Your task to perform on an android device: View the shopping cart on ebay. Search for "asus rog" on ebay, select the first entry, add it to the cart, then select checkout. Image 0: 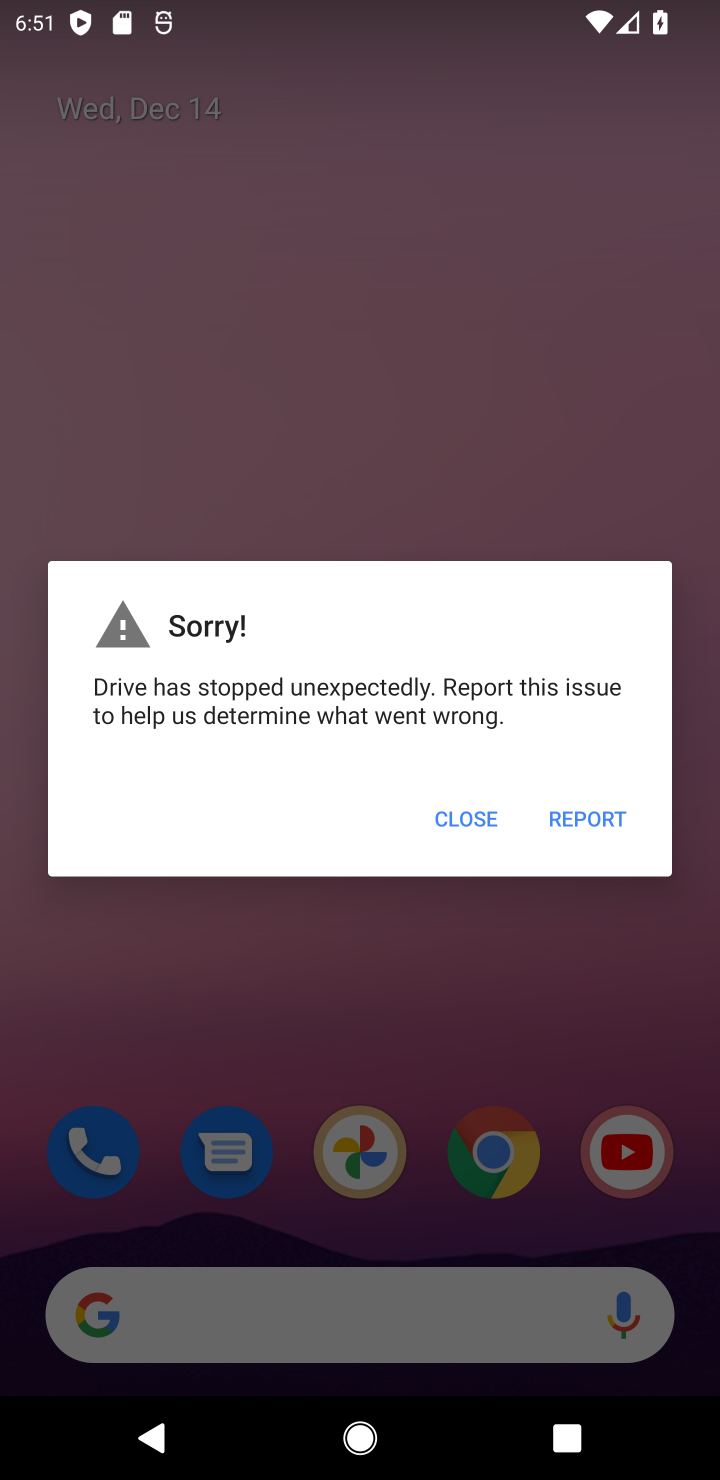
Step 0: press home button
Your task to perform on an android device: View the shopping cart on ebay. Search for "asus rog" on ebay, select the first entry, add it to the cart, then select checkout. Image 1: 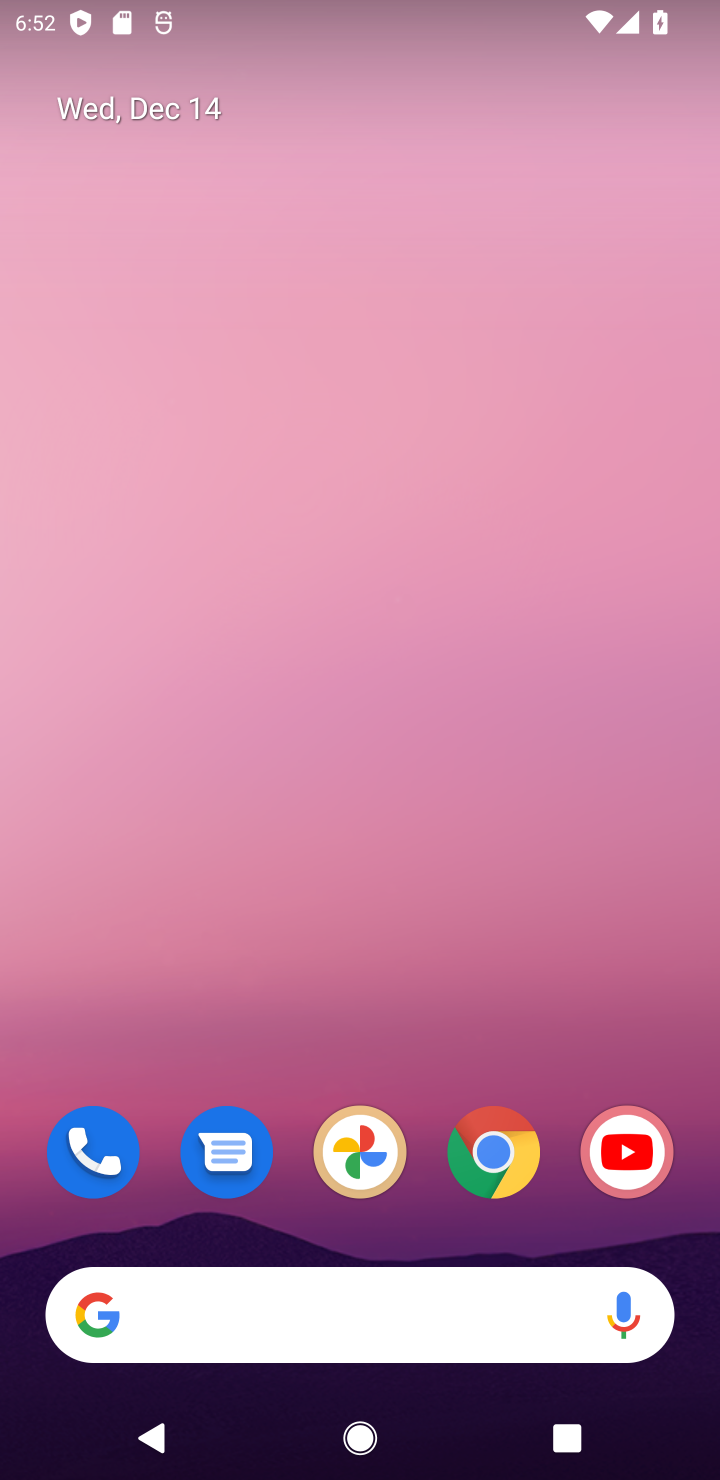
Step 1: click (504, 1160)
Your task to perform on an android device: View the shopping cart on ebay. Search for "asus rog" on ebay, select the first entry, add it to the cart, then select checkout. Image 2: 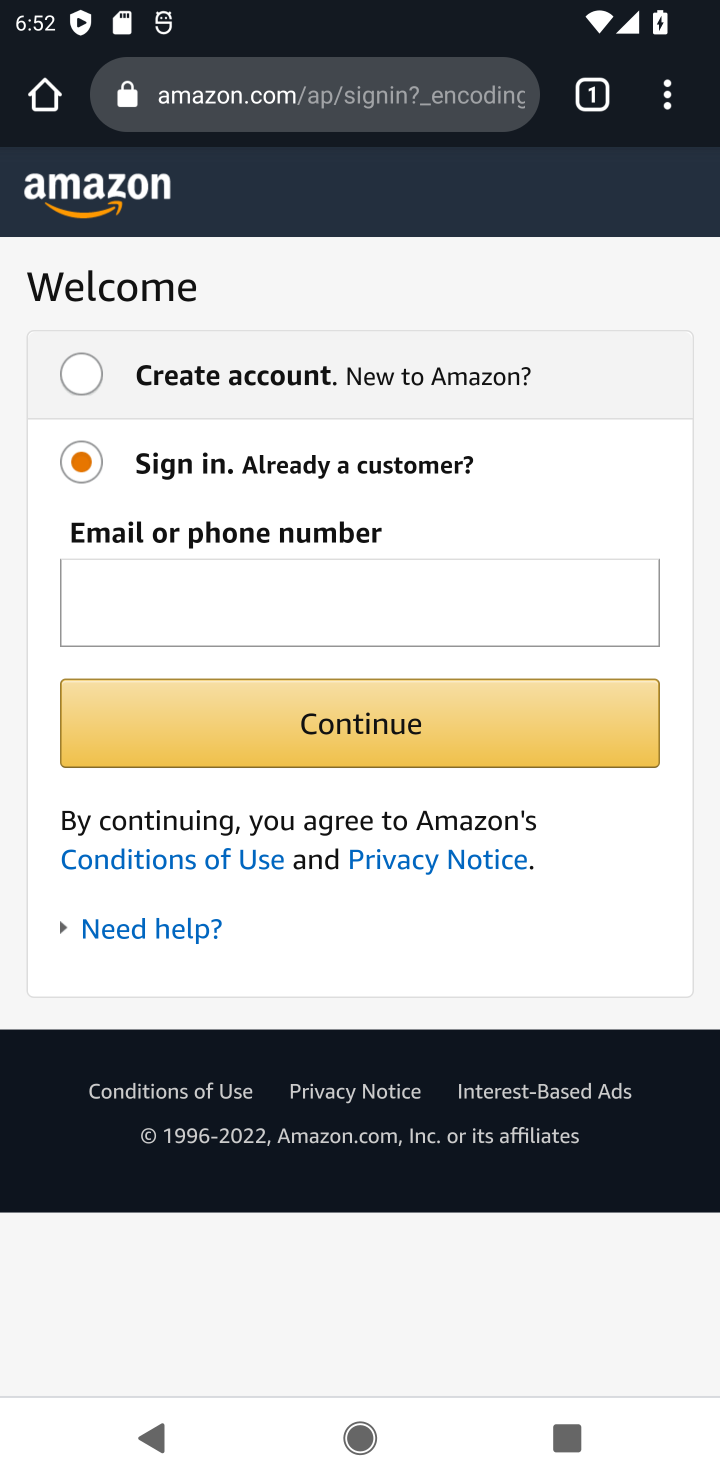
Step 2: click (298, 98)
Your task to perform on an android device: View the shopping cart on ebay. Search for "asus rog" on ebay, select the first entry, add it to the cart, then select checkout. Image 3: 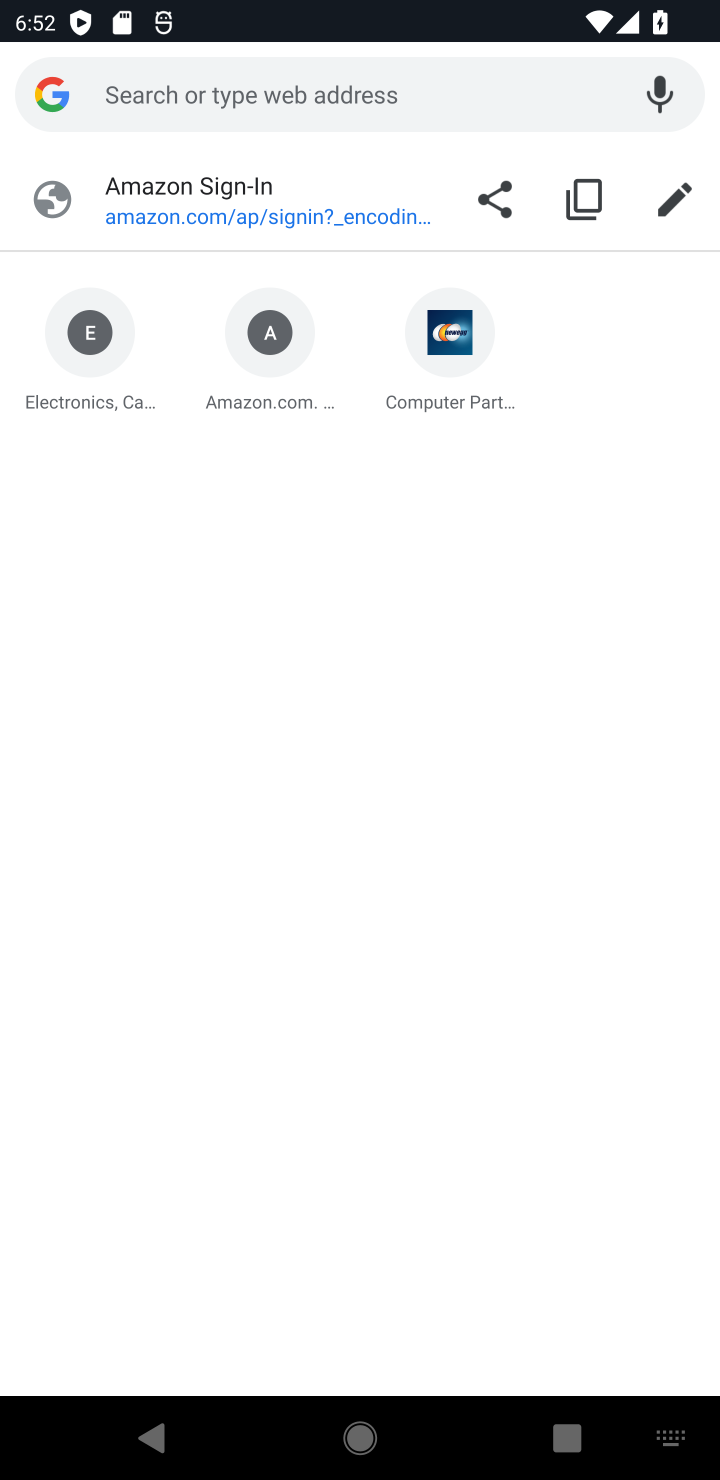
Step 3: type "ebay.com"
Your task to perform on an android device: View the shopping cart on ebay. Search for "asus rog" on ebay, select the first entry, add it to the cart, then select checkout. Image 4: 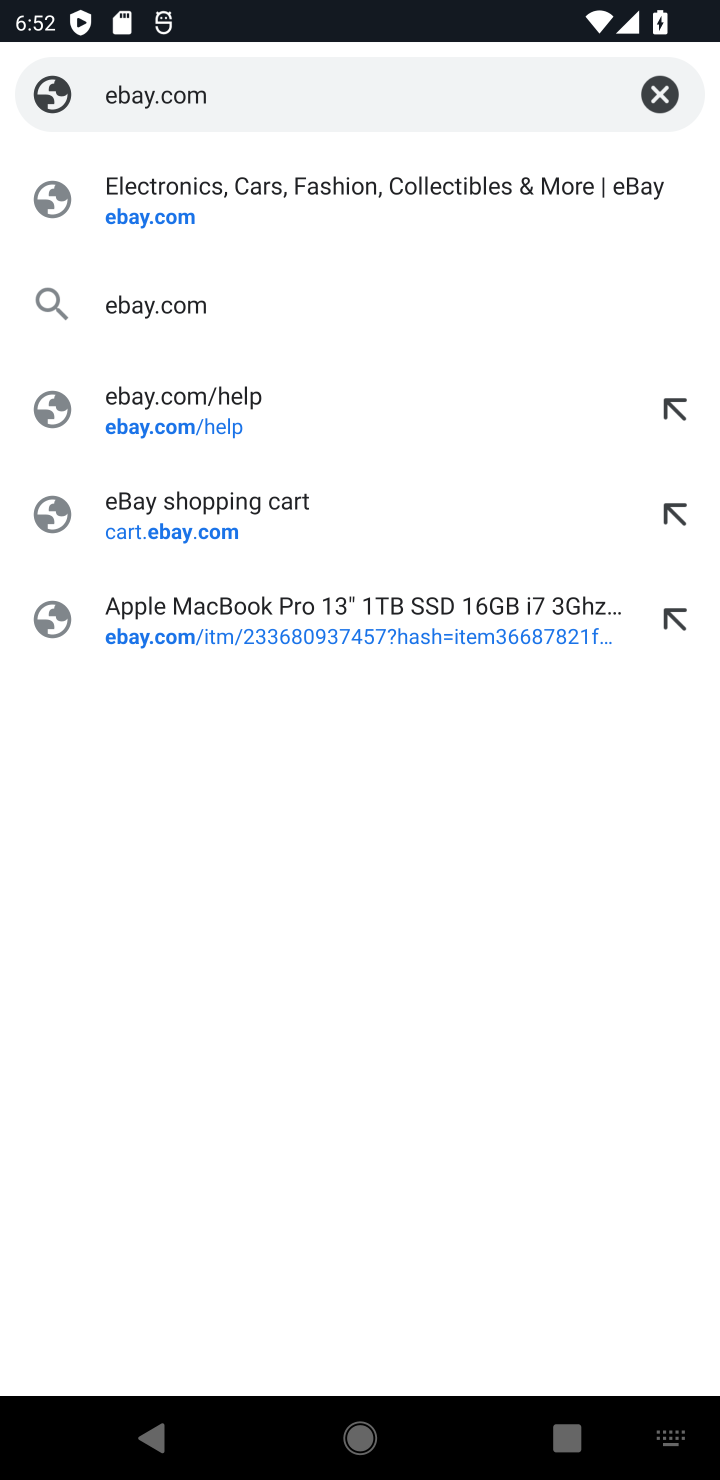
Step 4: click (170, 230)
Your task to perform on an android device: View the shopping cart on ebay. Search for "asus rog" on ebay, select the first entry, add it to the cart, then select checkout. Image 5: 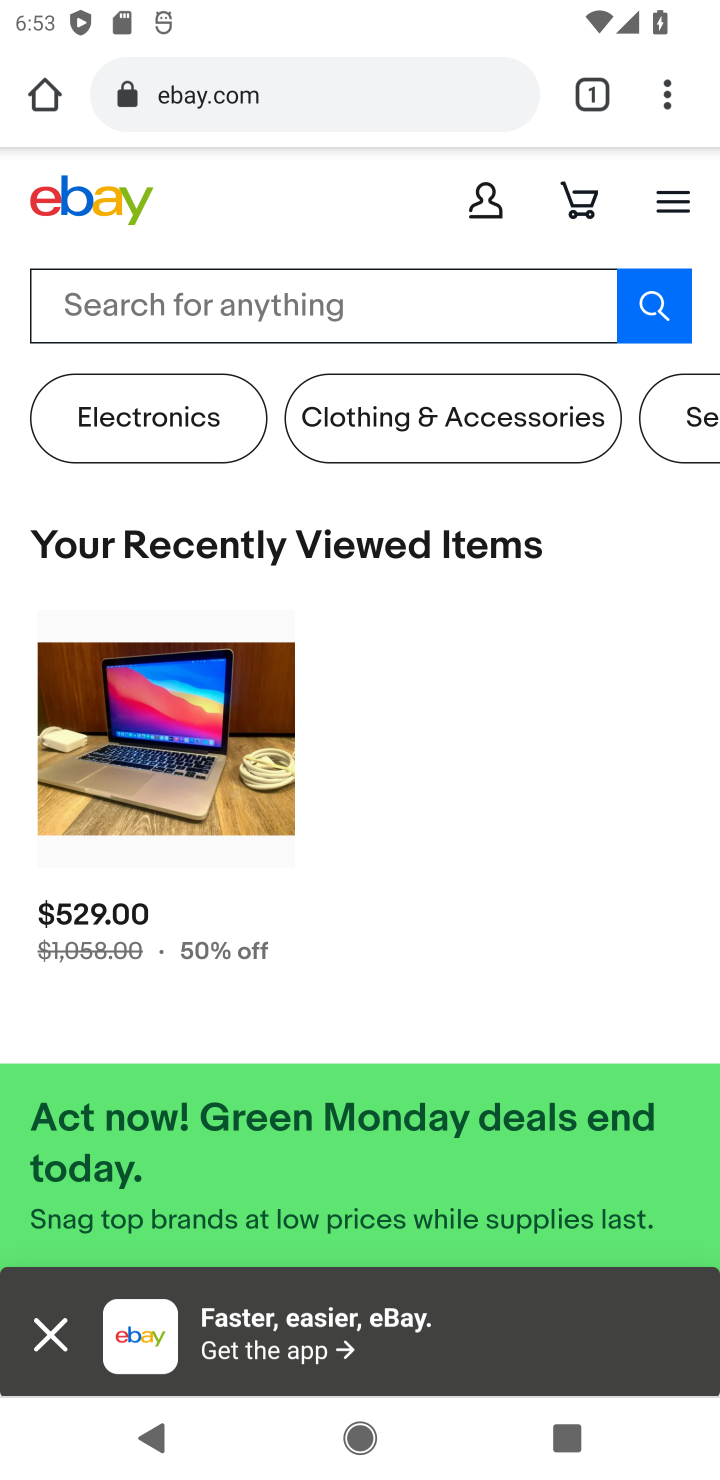
Step 5: click (585, 219)
Your task to perform on an android device: View the shopping cart on ebay. Search for "asus rog" on ebay, select the first entry, add it to the cart, then select checkout. Image 6: 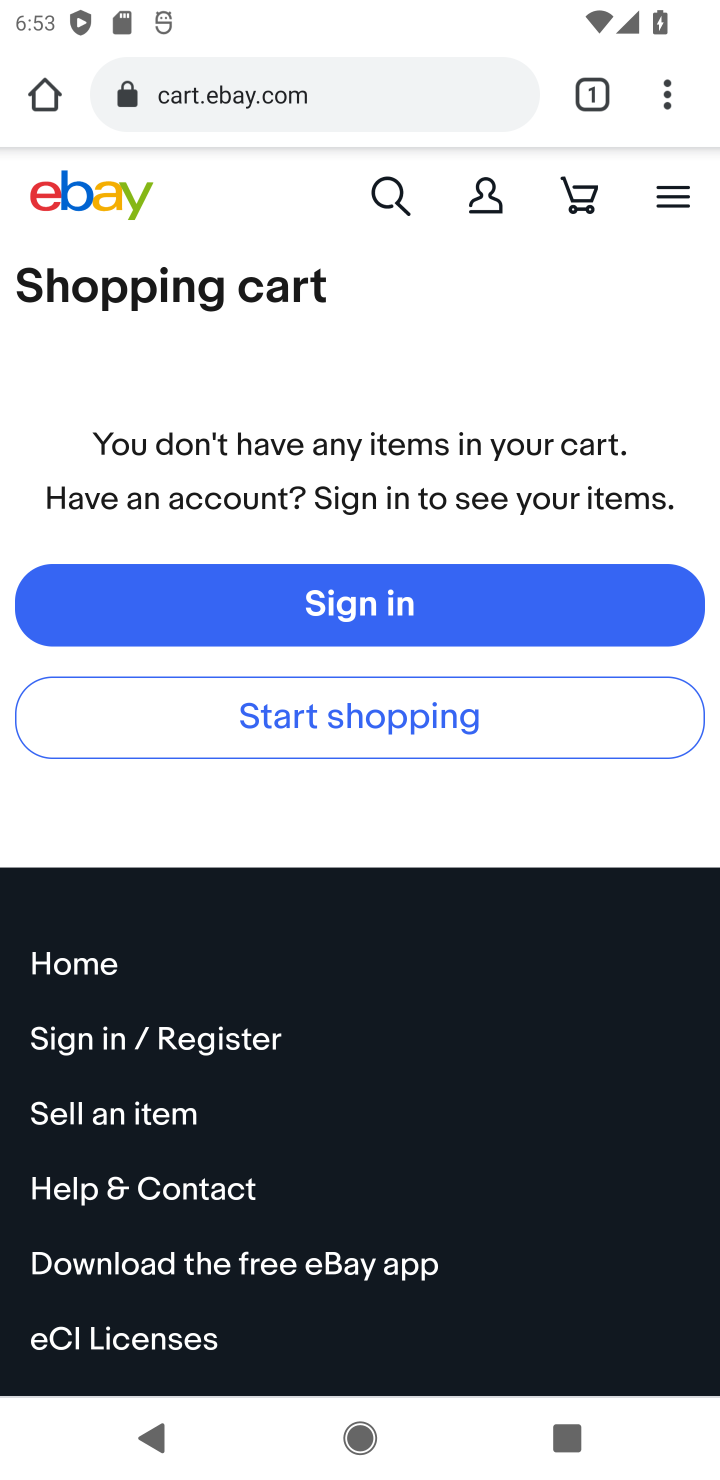
Step 6: click (387, 194)
Your task to perform on an android device: View the shopping cart on ebay. Search for "asus rog" on ebay, select the first entry, add it to the cart, then select checkout. Image 7: 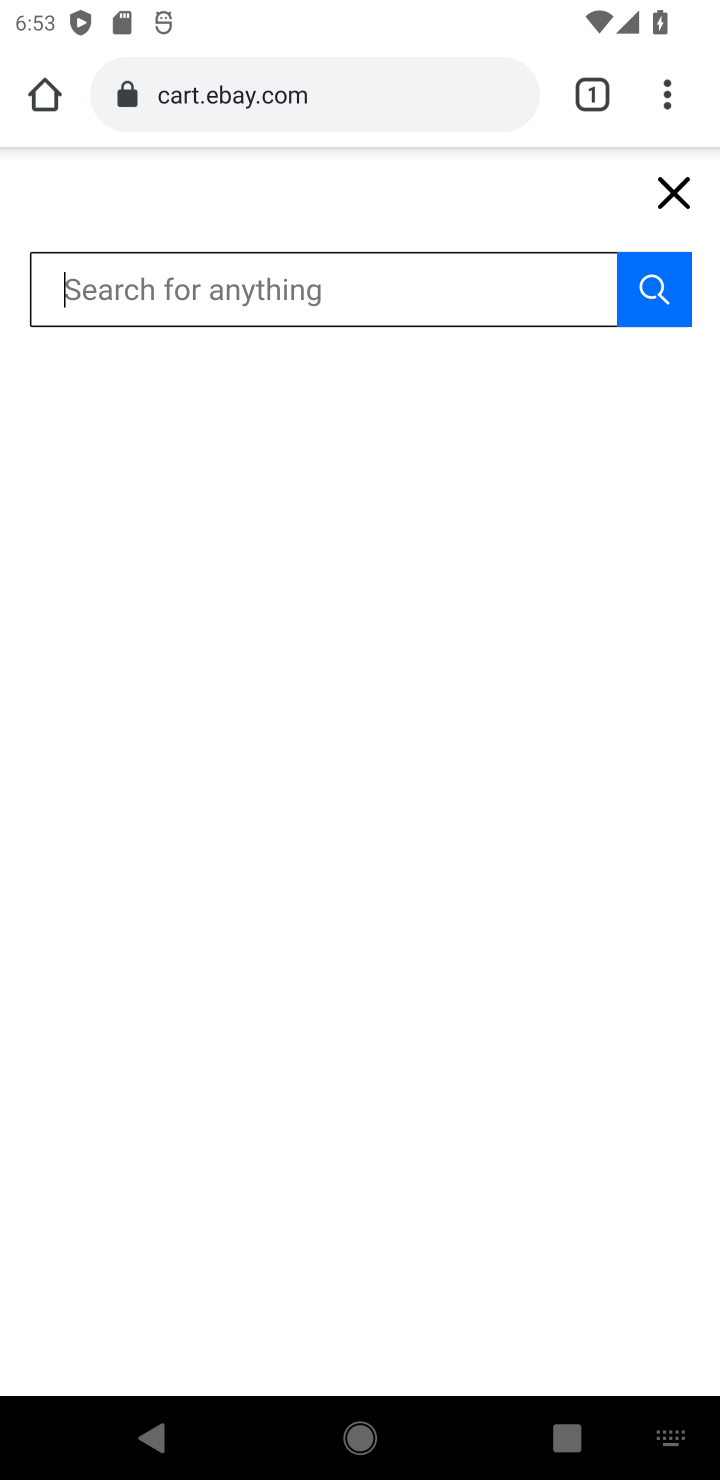
Step 7: type "asus rog"
Your task to perform on an android device: View the shopping cart on ebay. Search for "asus rog" on ebay, select the first entry, add it to the cart, then select checkout. Image 8: 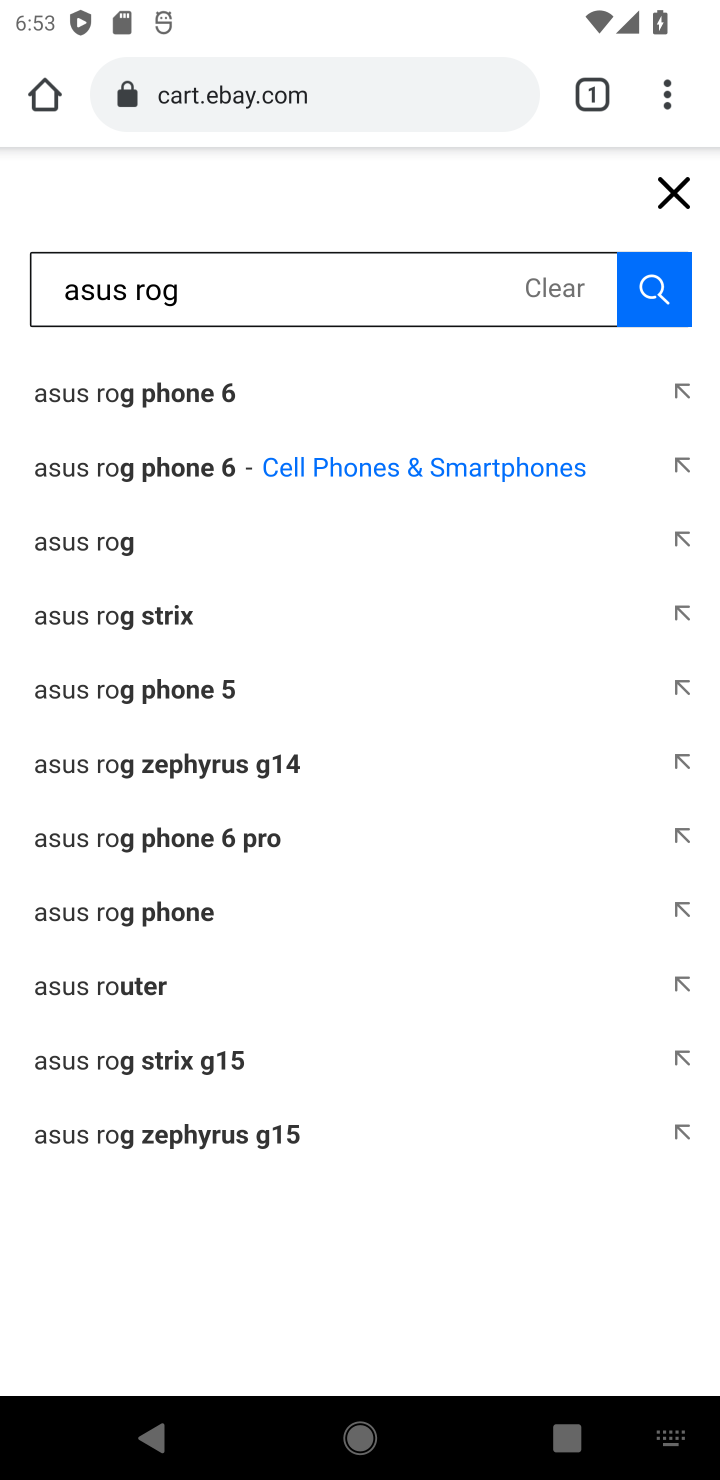
Step 8: click (92, 546)
Your task to perform on an android device: View the shopping cart on ebay. Search for "asus rog" on ebay, select the first entry, add it to the cart, then select checkout. Image 9: 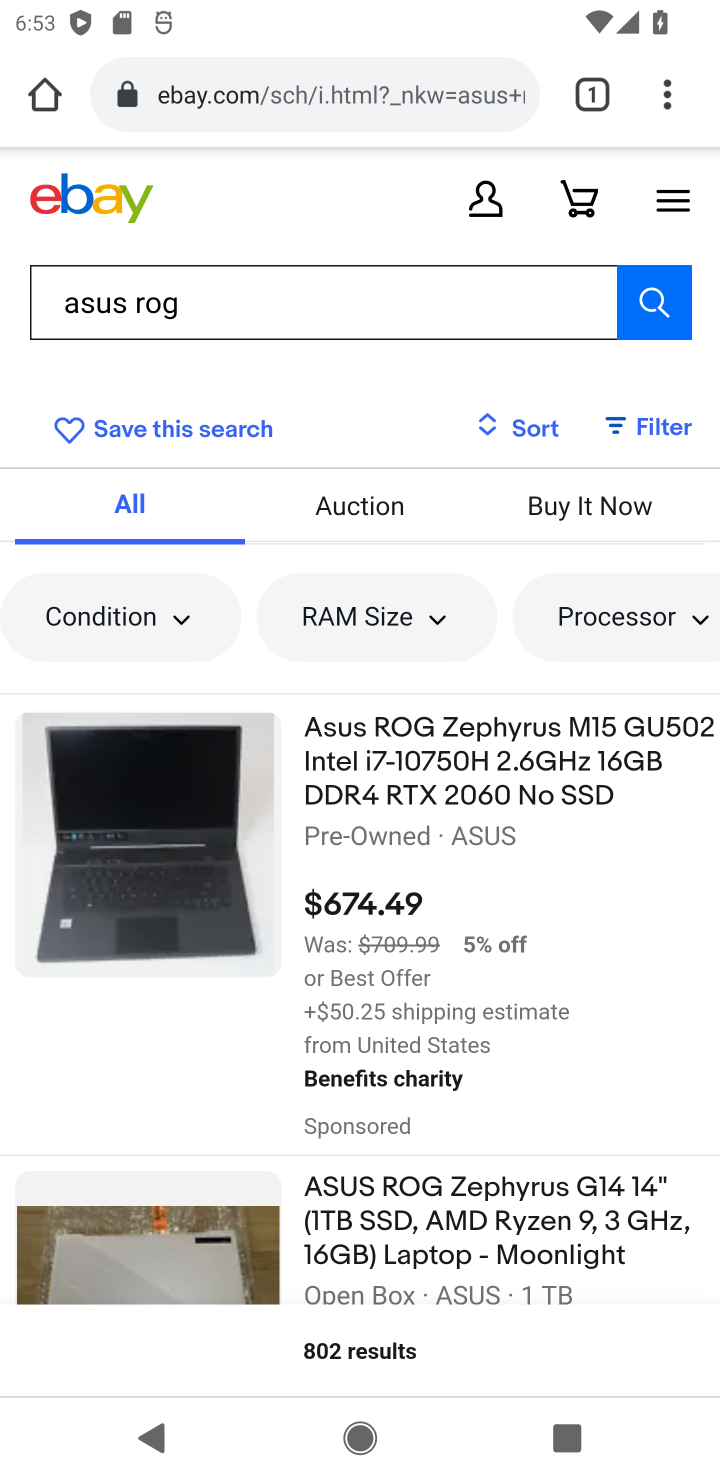
Step 9: click (367, 777)
Your task to perform on an android device: View the shopping cart on ebay. Search for "asus rog" on ebay, select the first entry, add it to the cart, then select checkout. Image 10: 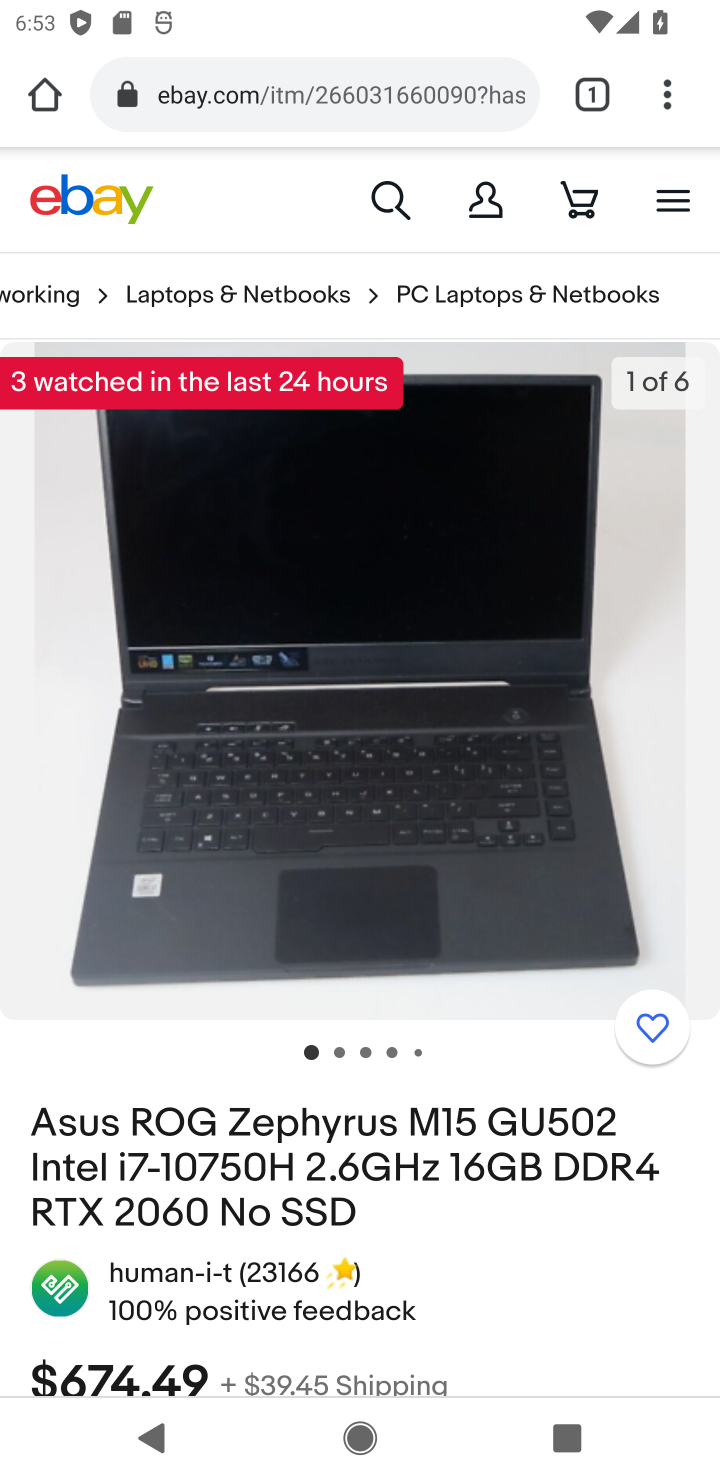
Step 10: drag from (386, 1049) to (383, 562)
Your task to perform on an android device: View the shopping cart on ebay. Search for "asus rog" on ebay, select the first entry, add it to the cart, then select checkout. Image 11: 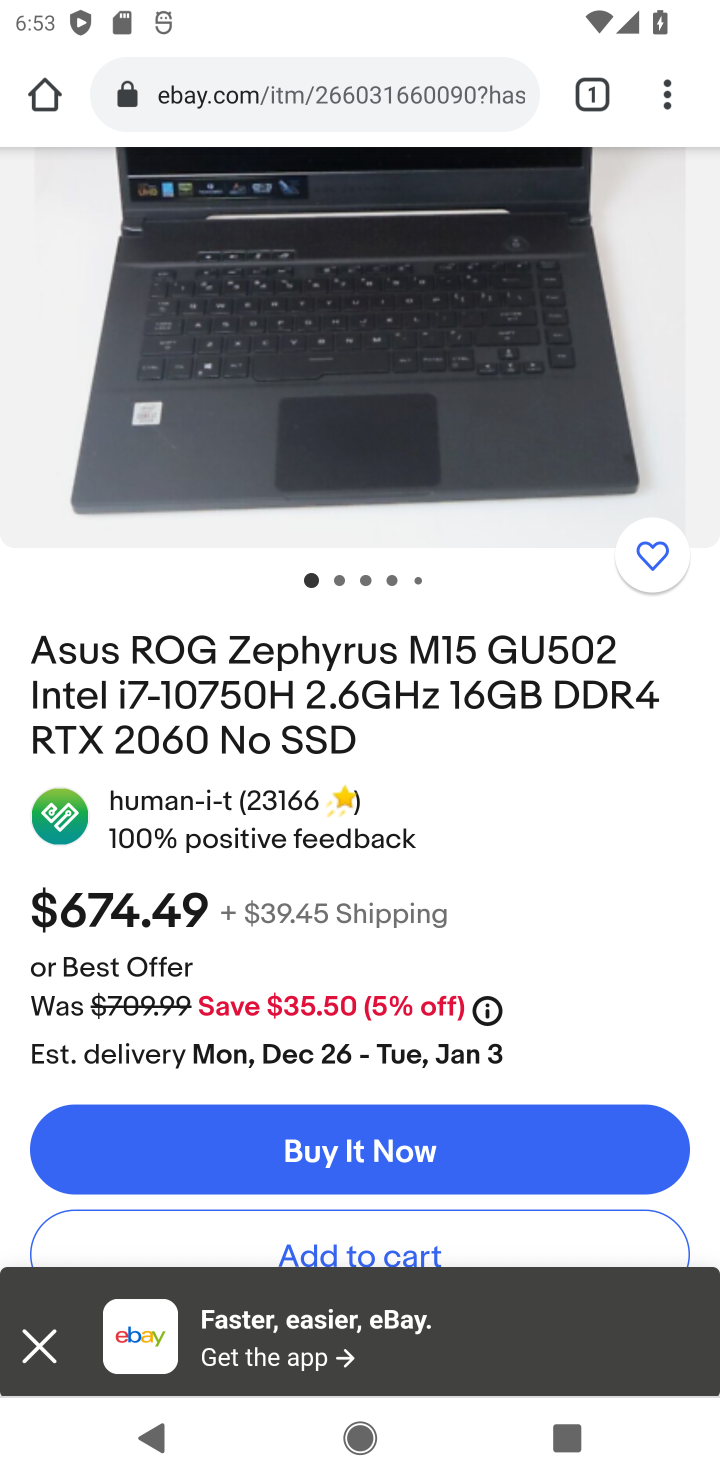
Step 11: drag from (359, 1037) to (360, 533)
Your task to perform on an android device: View the shopping cart on ebay. Search for "asus rog" on ebay, select the first entry, add it to the cart, then select checkout. Image 12: 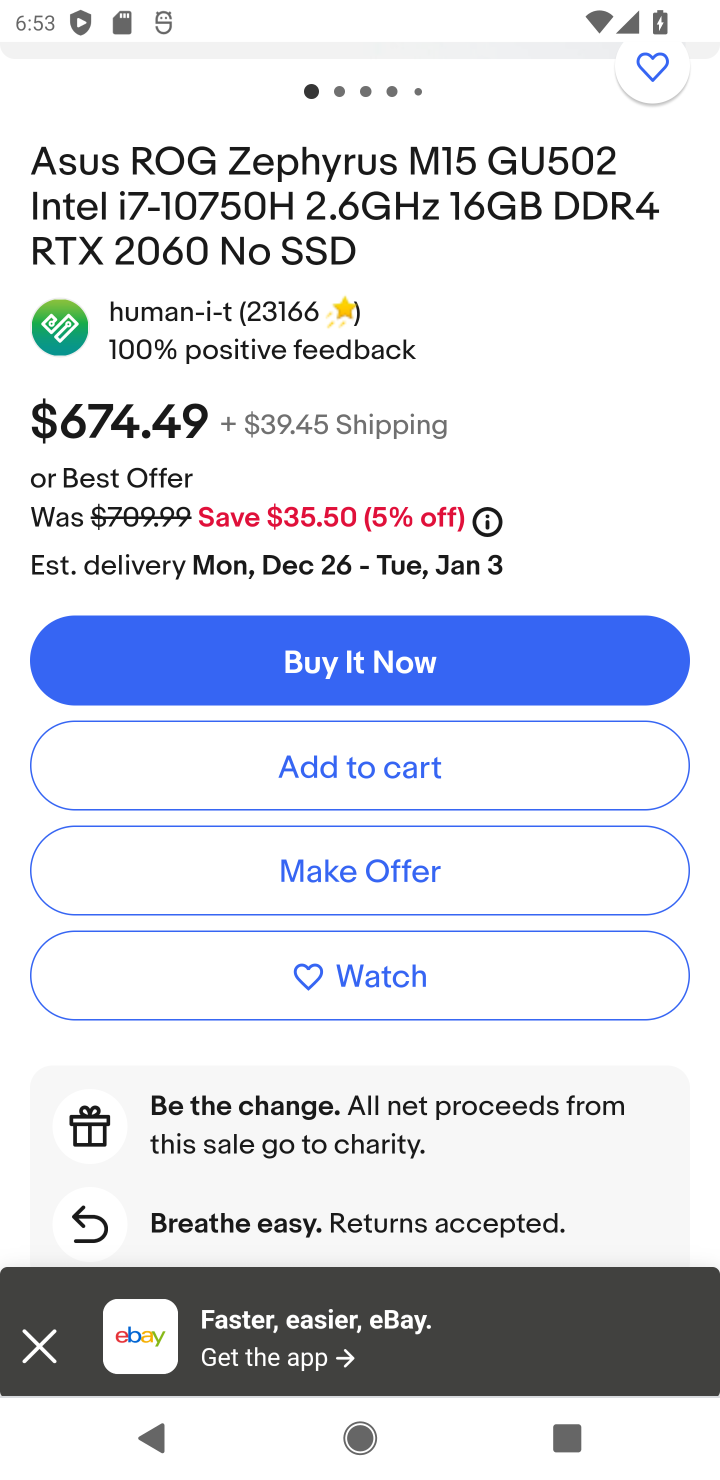
Step 12: click (341, 762)
Your task to perform on an android device: View the shopping cart on ebay. Search for "asus rog" on ebay, select the first entry, add it to the cart, then select checkout. Image 13: 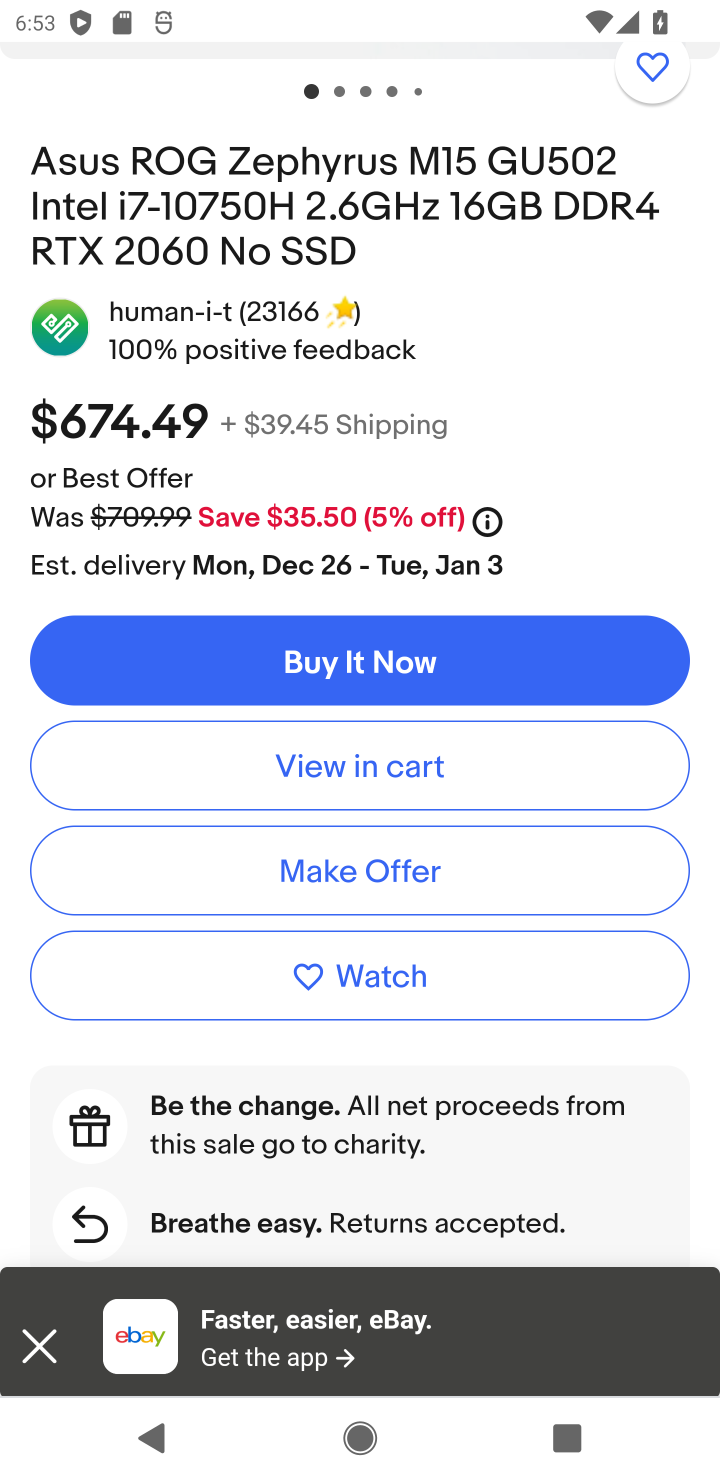
Step 13: click (341, 762)
Your task to perform on an android device: View the shopping cart on ebay. Search for "asus rog" on ebay, select the first entry, add it to the cart, then select checkout. Image 14: 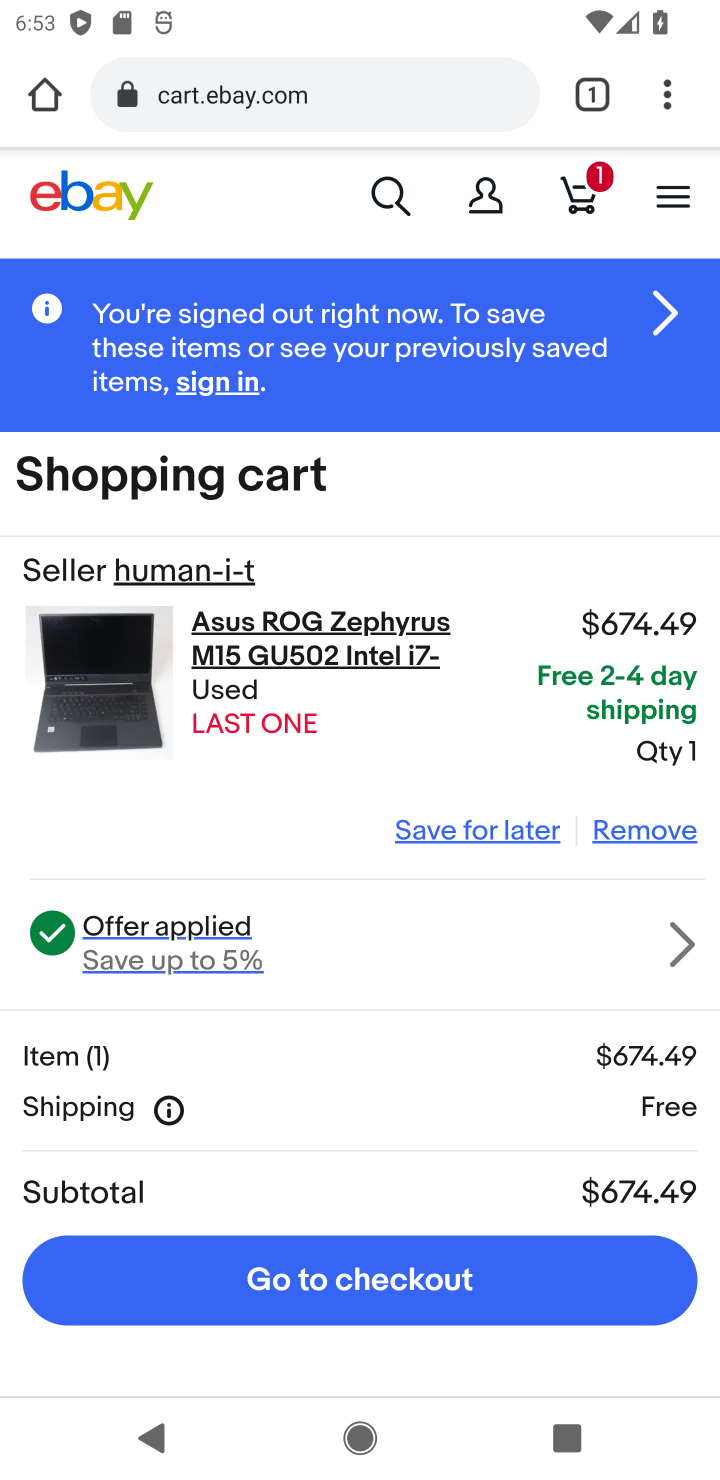
Step 14: click (324, 1281)
Your task to perform on an android device: View the shopping cart on ebay. Search for "asus rog" on ebay, select the first entry, add it to the cart, then select checkout. Image 15: 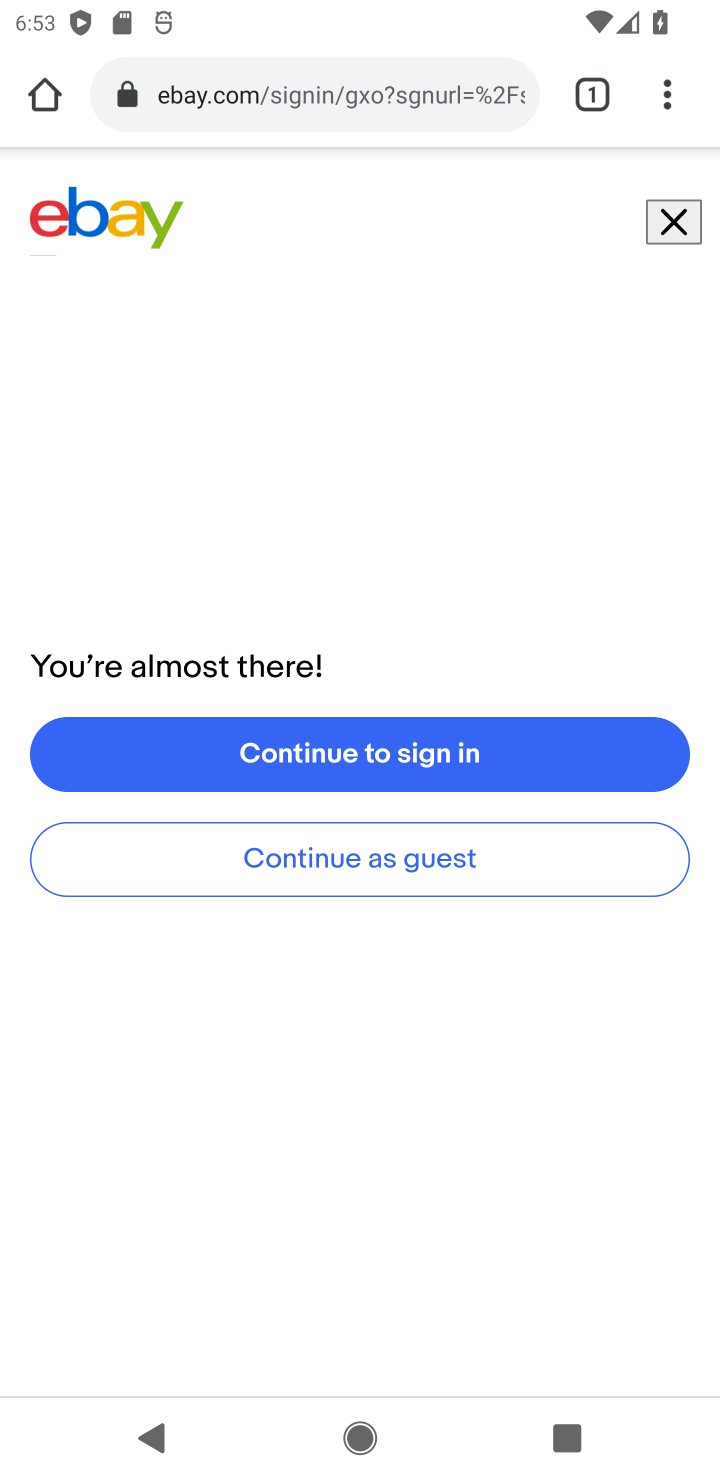
Step 15: task complete